Your task to perform on an android device: turn pop-ups off in chrome Image 0: 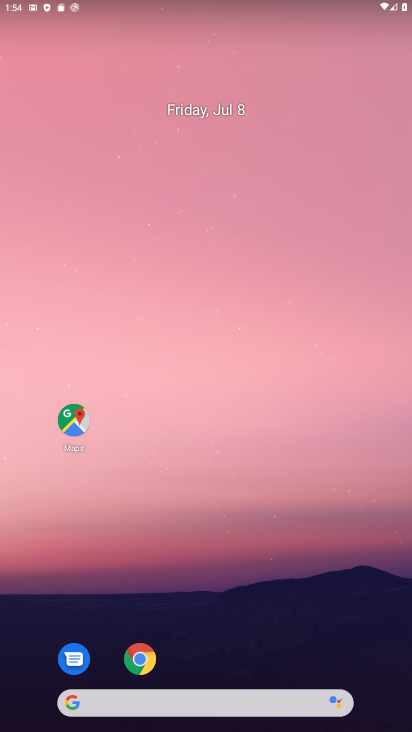
Step 0: press home button
Your task to perform on an android device: turn pop-ups off in chrome Image 1: 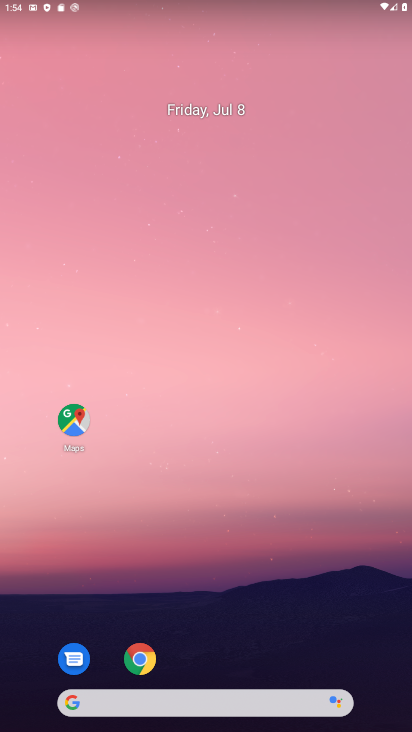
Step 1: drag from (273, 664) to (274, 304)
Your task to perform on an android device: turn pop-ups off in chrome Image 2: 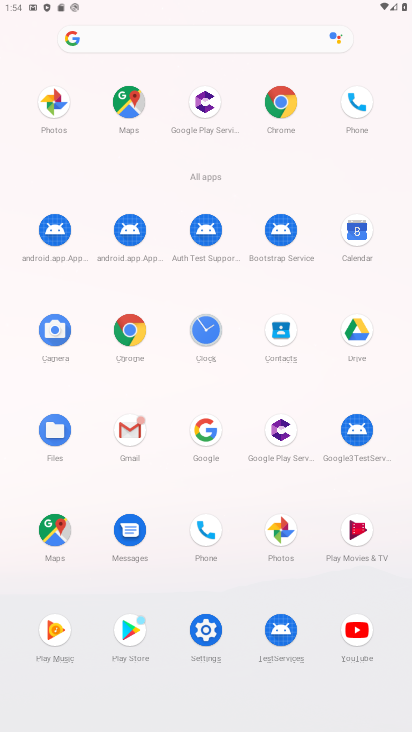
Step 2: click (267, 89)
Your task to perform on an android device: turn pop-ups off in chrome Image 3: 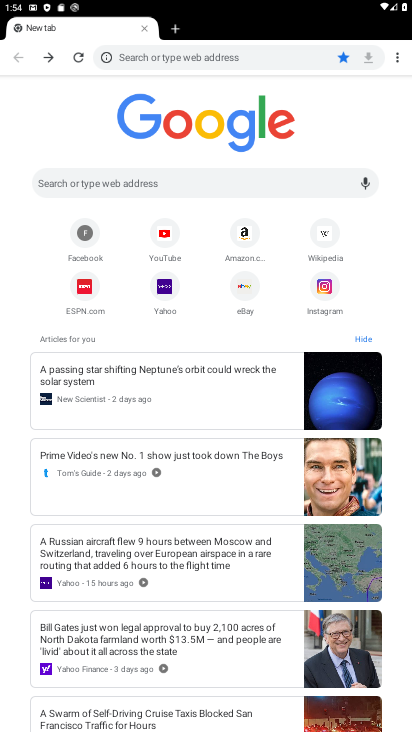
Step 3: drag from (394, 57) to (354, 275)
Your task to perform on an android device: turn pop-ups off in chrome Image 4: 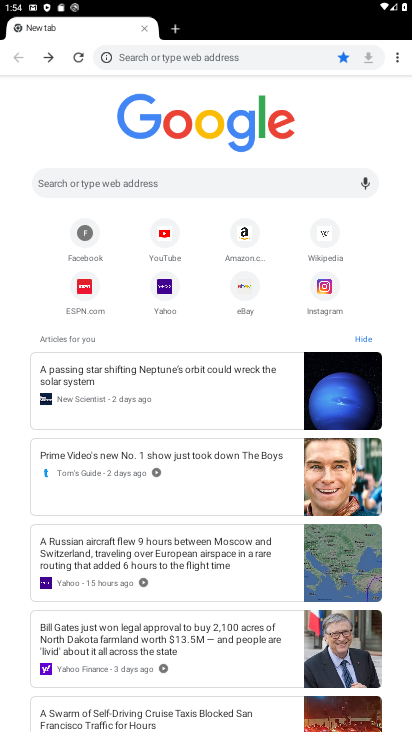
Step 4: drag from (410, 56) to (257, 286)
Your task to perform on an android device: turn pop-ups off in chrome Image 5: 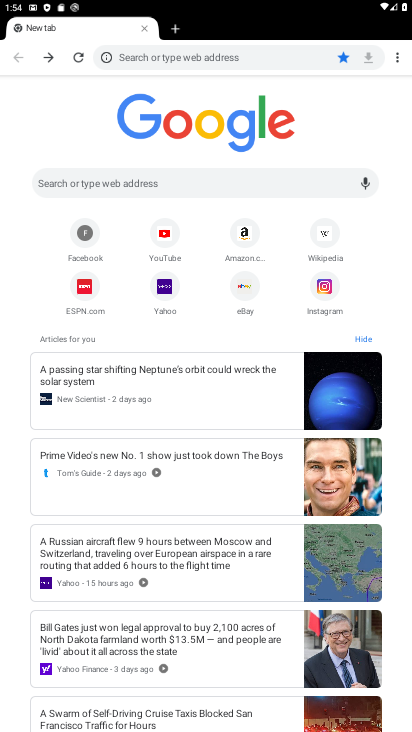
Step 5: drag from (403, 60) to (269, 307)
Your task to perform on an android device: turn pop-ups off in chrome Image 6: 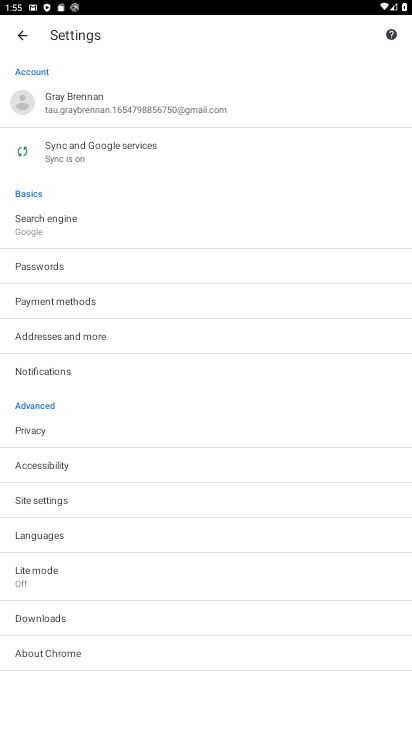
Step 6: click (71, 497)
Your task to perform on an android device: turn pop-ups off in chrome Image 7: 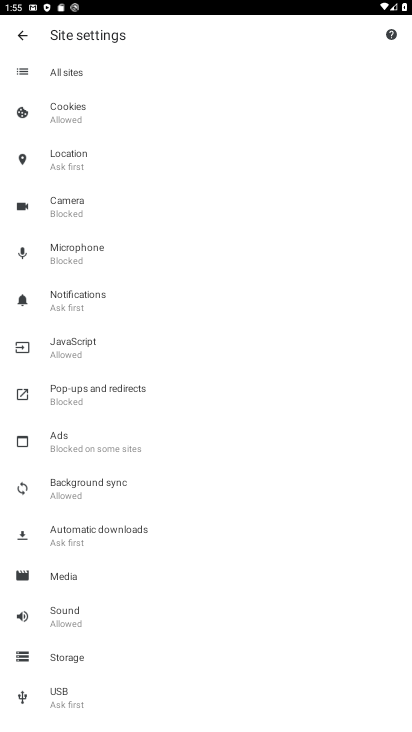
Step 7: click (119, 385)
Your task to perform on an android device: turn pop-ups off in chrome Image 8: 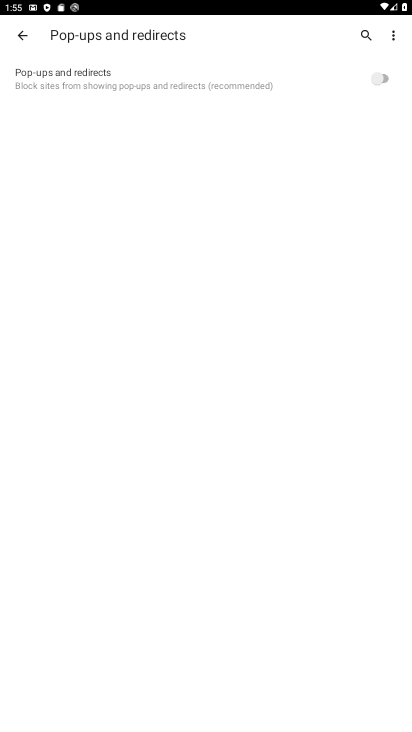
Step 8: task complete